Your task to perform on an android device: Turn on the flashlight Image 0: 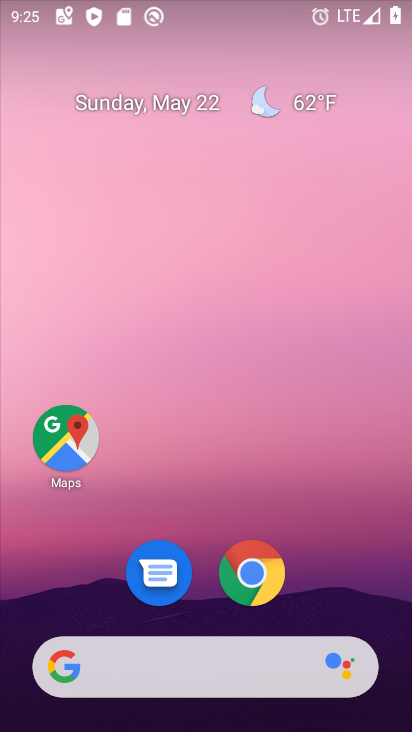
Step 0: drag from (295, 18) to (353, 564)
Your task to perform on an android device: Turn on the flashlight Image 1: 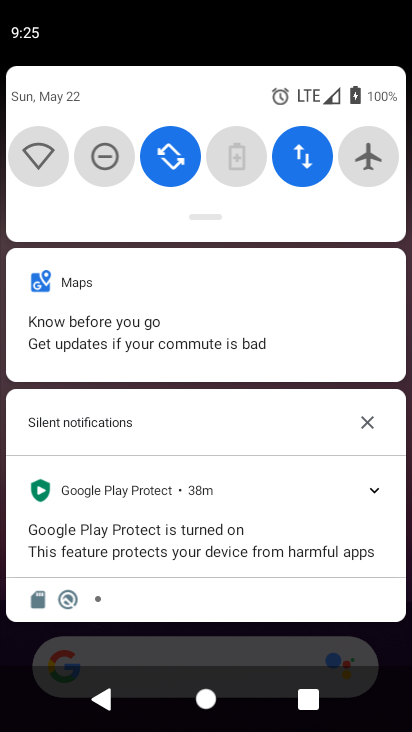
Step 1: task complete